Your task to perform on an android device: change the clock display to show seconds Image 0: 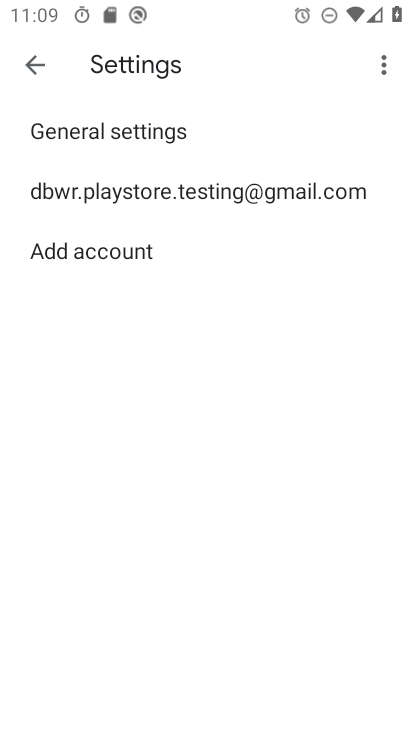
Step 0: press home button
Your task to perform on an android device: change the clock display to show seconds Image 1: 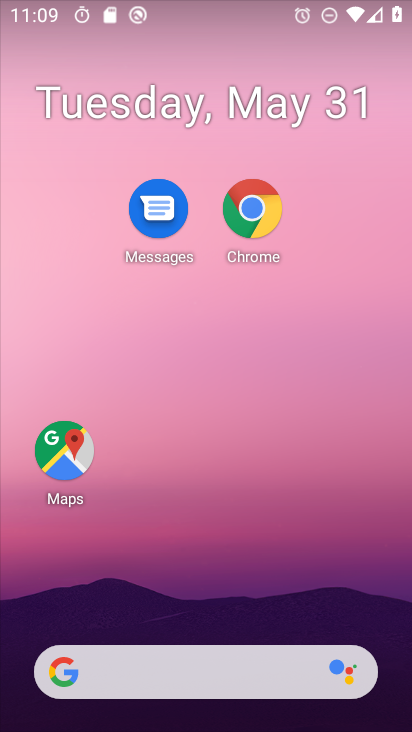
Step 1: drag from (222, 621) to (227, 118)
Your task to perform on an android device: change the clock display to show seconds Image 2: 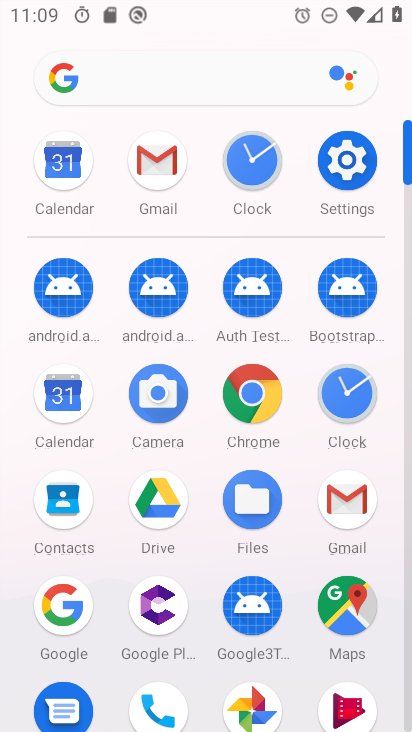
Step 2: click (345, 379)
Your task to perform on an android device: change the clock display to show seconds Image 3: 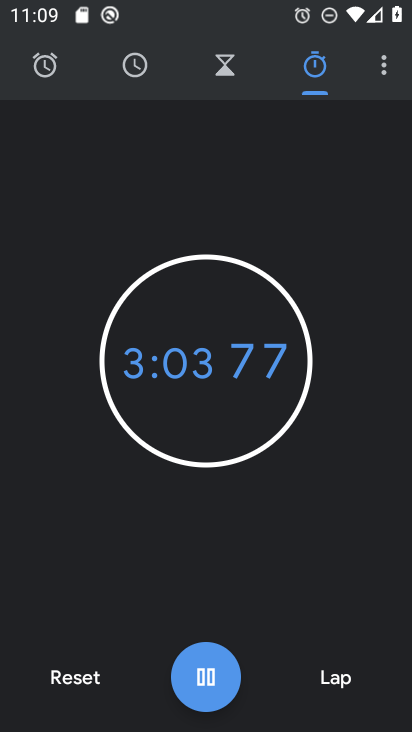
Step 3: click (76, 668)
Your task to perform on an android device: change the clock display to show seconds Image 4: 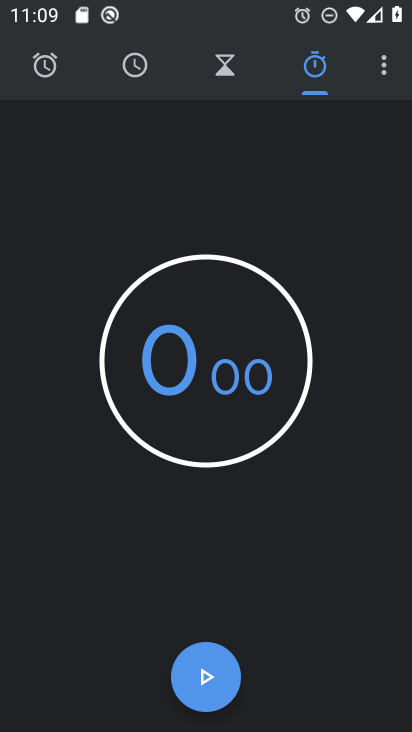
Step 4: click (381, 63)
Your task to perform on an android device: change the clock display to show seconds Image 5: 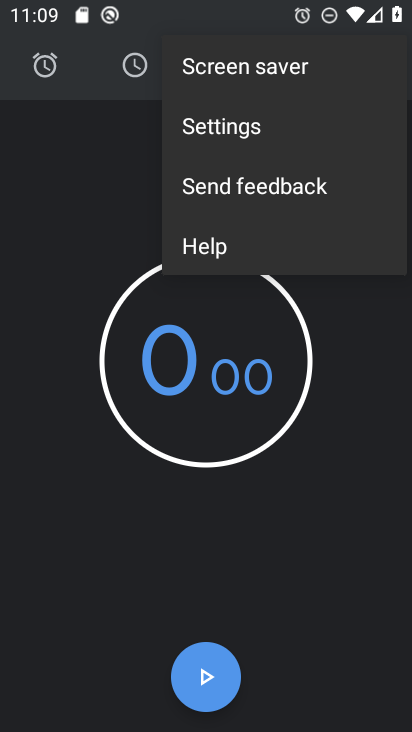
Step 5: click (275, 125)
Your task to perform on an android device: change the clock display to show seconds Image 6: 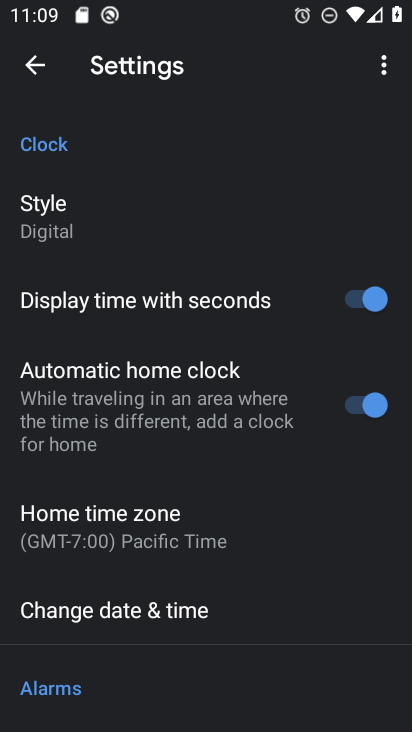
Step 6: click (361, 293)
Your task to perform on an android device: change the clock display to show seconds Image 7: 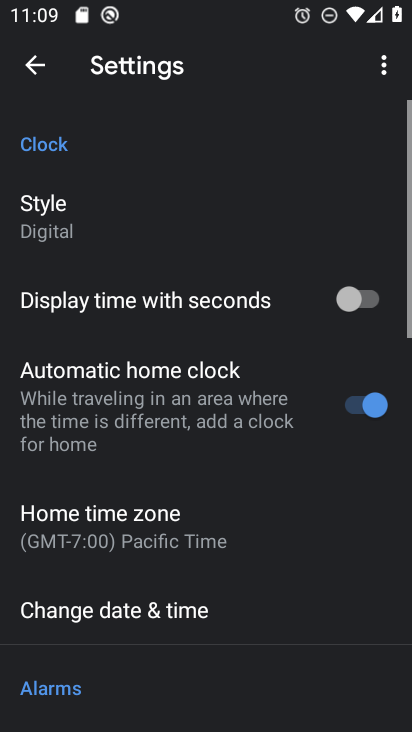
Step 7: task complete